Your task to perform on an android device: allow notifications from all sites in the chrome app Image 0: 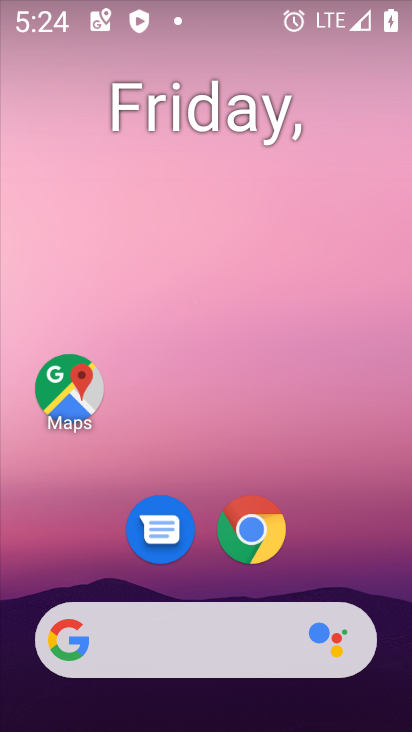
Step 0: click (254, 519)
Your task to perform on an android device: allow notifications from all sites in the chrome app Image 1: 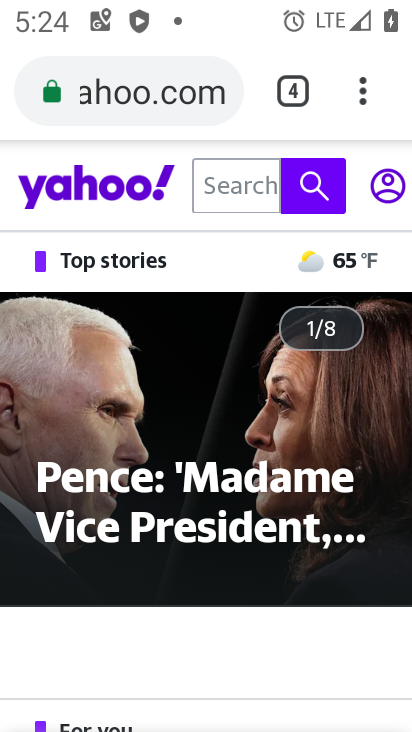
Step 1: click (368, 80)
Your task to perform on an android device: allow notifications from all sites in the chrome app Image 2: 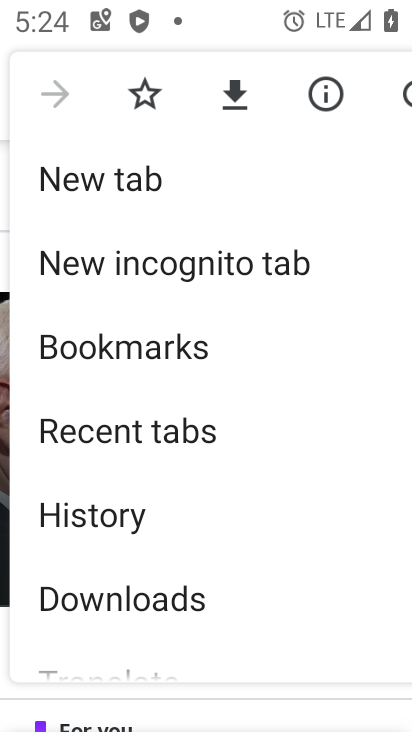
Step 2: drag from (253, 617) to (229, 190)
Your task to perform on an android device: allow notifications from all sites in the chrome app Image 3: 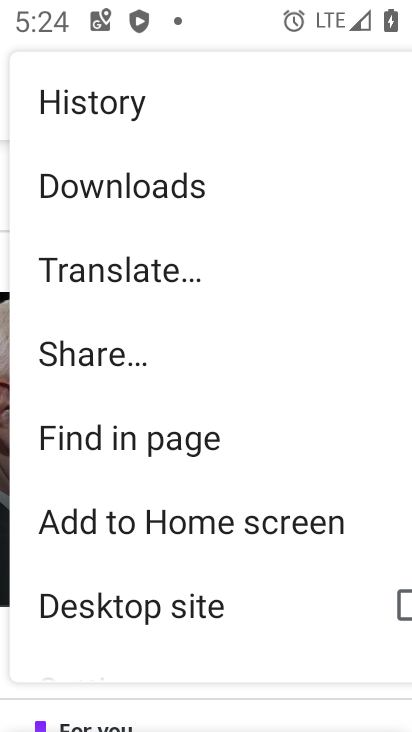
Step 3: drag from (265, 608) to (181, 161)
Your task to perform on an android device: allow notifications from all sites in the chrome app Image 4: 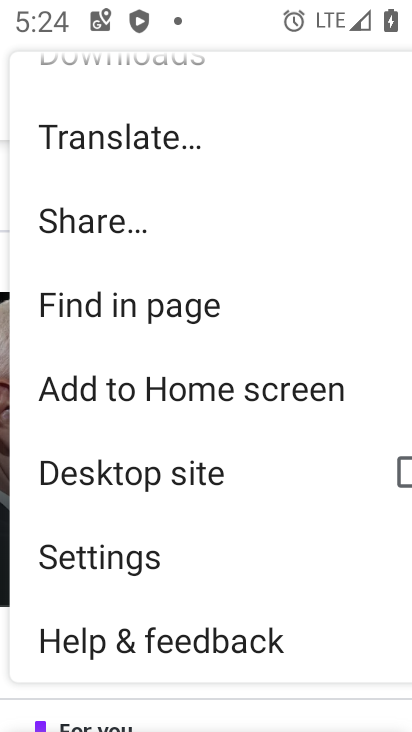
Step 4: click (120, 555)
Your task to perform on an android device: allow notifications from all sites in the chrome app Image 5: 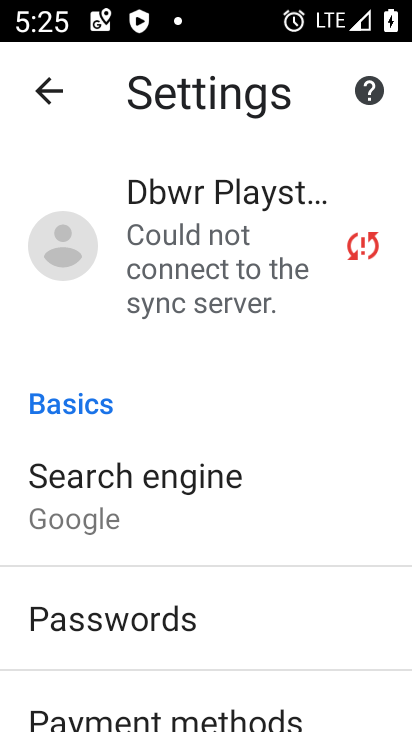
Step 5: drag from (256, 649) to (202, 185)
Your task to perform on an android device: allow notifications from all sites in the chrome app Image 6: 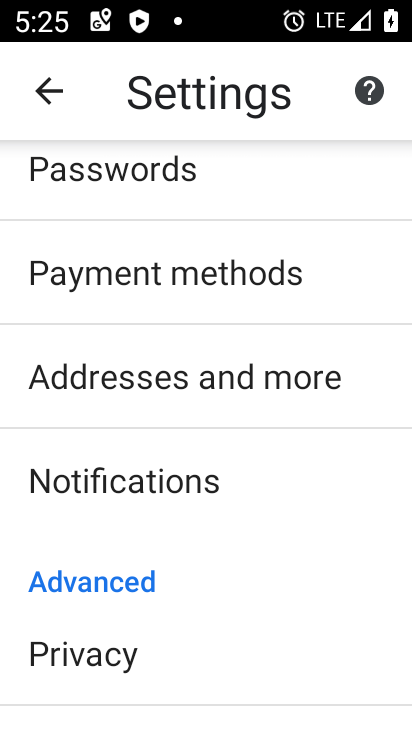
Step 6: drag from (239, 622) to (237, 205)
Your task to perform on an android device: allow notifications from all sites in the chrome app Image 7: 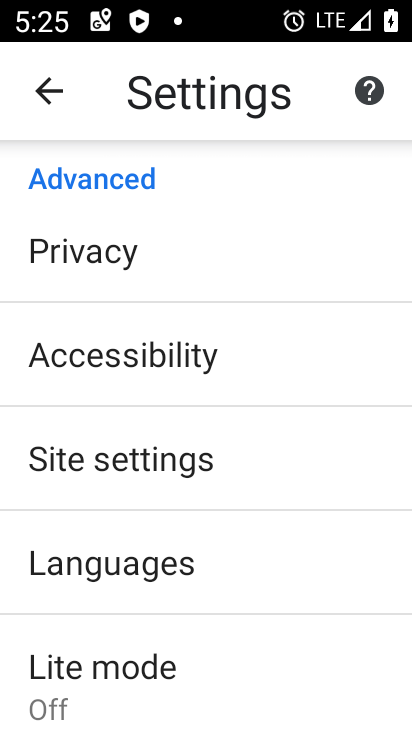
Step 7: click (118, 466)
Your task to perform on an android device: allow notifications from all sites in the chrome app Image 8: 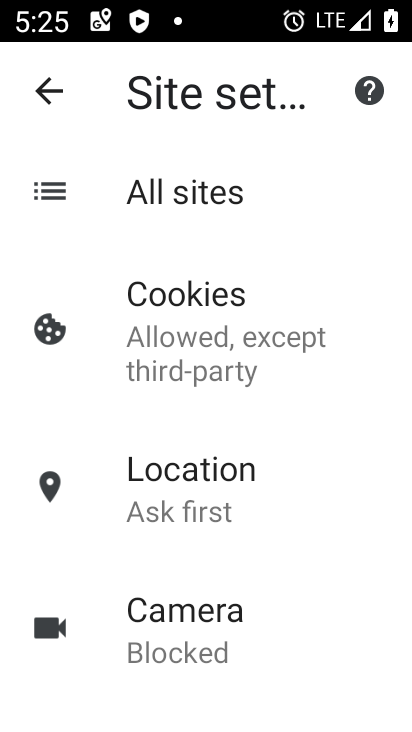
Step 8: click (218, 206)
Your task to perform on an android device: allow notifications from all sites in the chrome app Image 9: 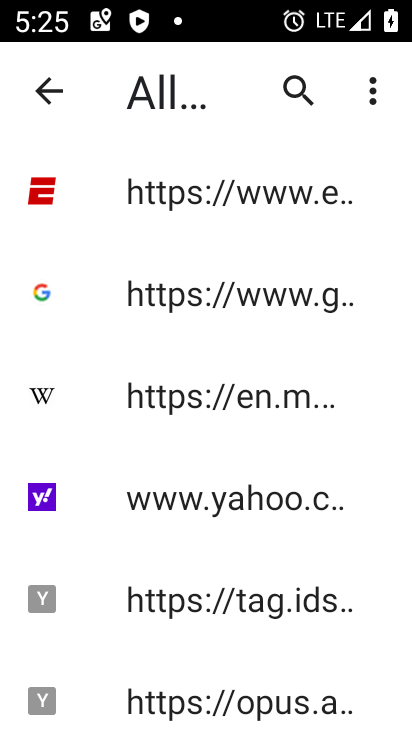
Step 9: click (52, 105)
Your task to perform on an android device: allow notifications from all sites in the chrome app Image 10: 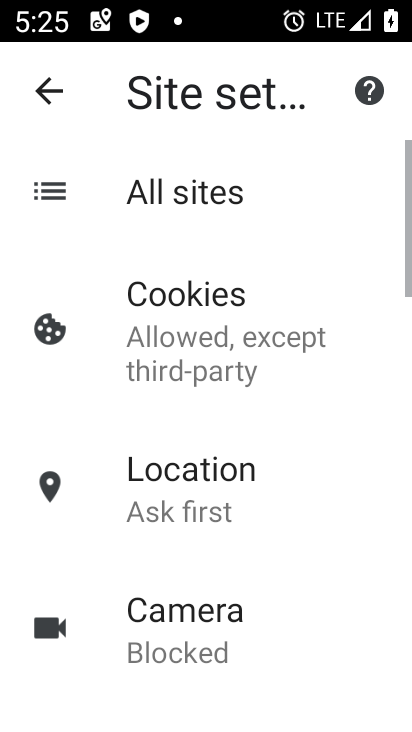
Step 10: drag from (255, 634) to (263, 236)
Your task to perform on an android device: allow notifications from all sites in the chrome app Image 11: 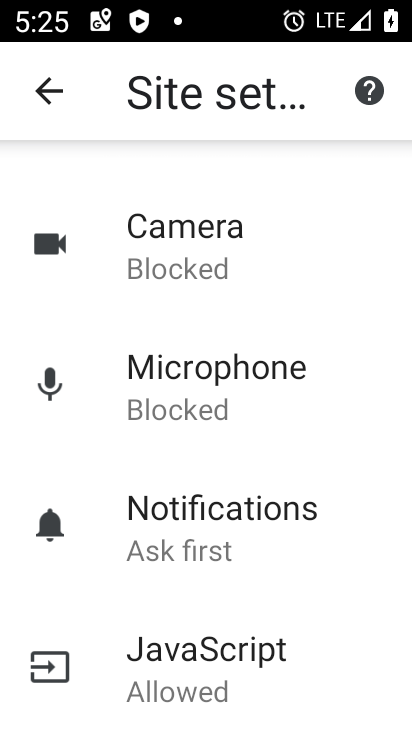
Step 11: click (216, 528)
Your task to perform on an android device: allow notifications from all sites in the chrome app Image 12: 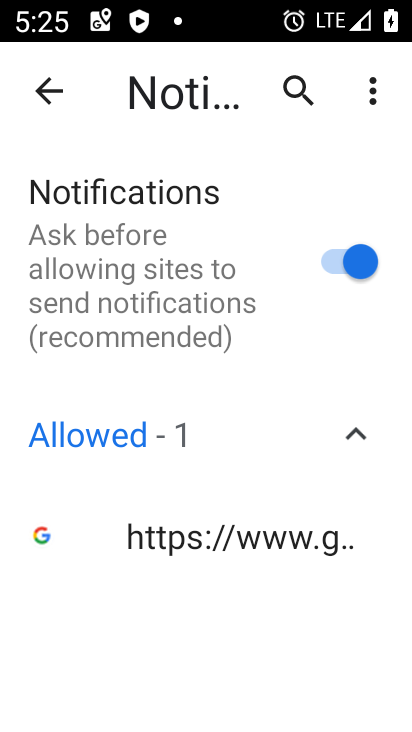
Step 12: task complete